Your task to perform on an android device: Open maps Image 0: 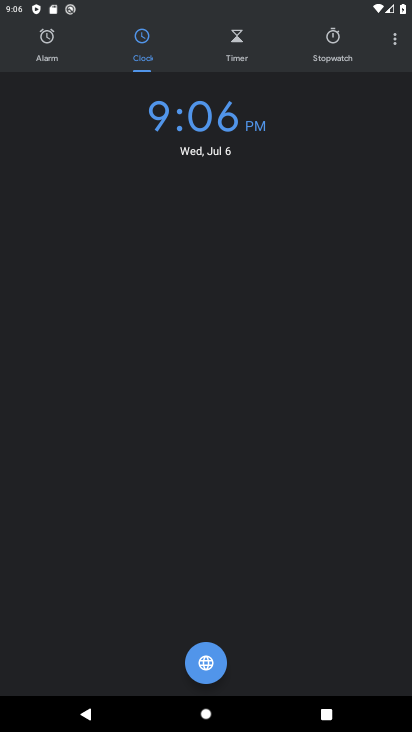
Step 0: press home button
Your task to perform on an android device: Open maps Image 1: 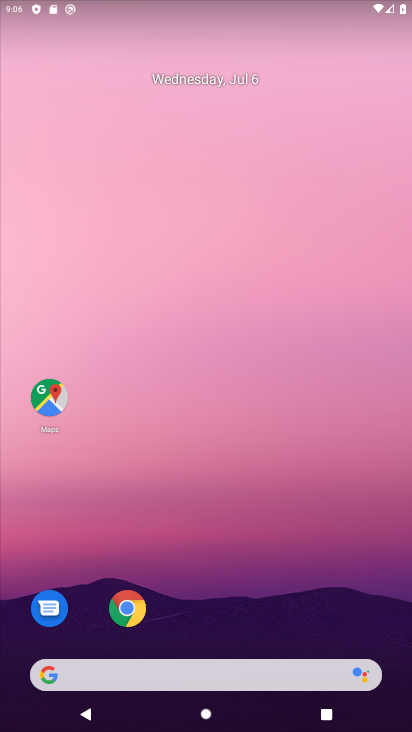
Step 1: click (45, 396)
Your task to perform on an android device: Open maps Image 2: 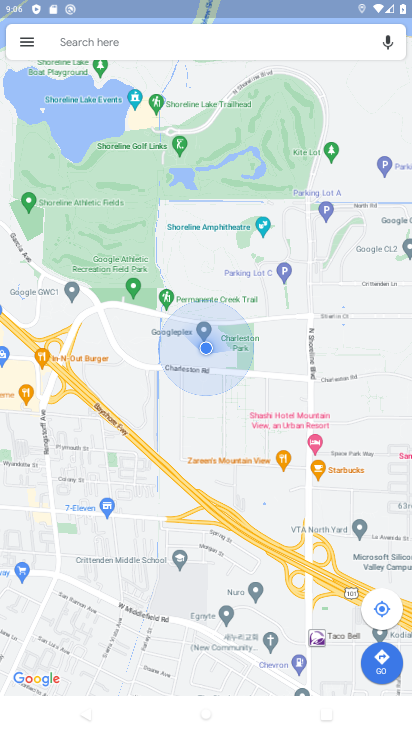
Step 2: task complete